Your task to perform on an android device: open wifi settings Image 0: 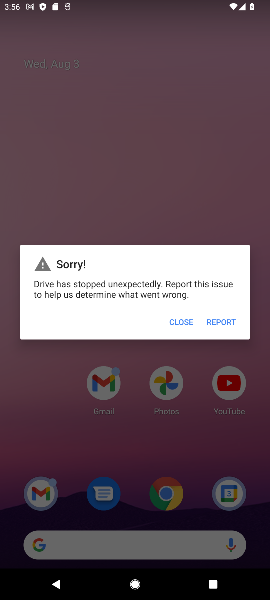
Step 0: press home button
Your task to perform on an android device: open wifi settings Image 1: 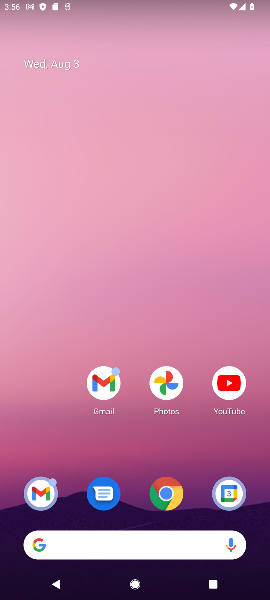
Step 1: drag from (49, 444) to (75, 144)
Your task to perform on an android device: open wifi settings Image 2: 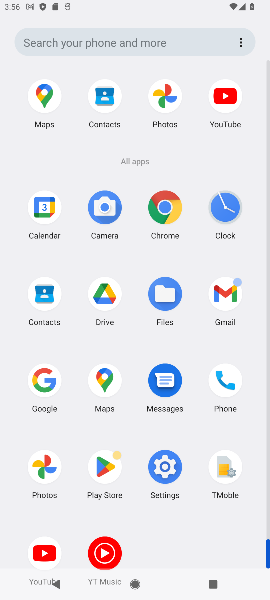
Step 2: click (176, 467)
Your task to perform on an android device: open wifi settings Image 3: 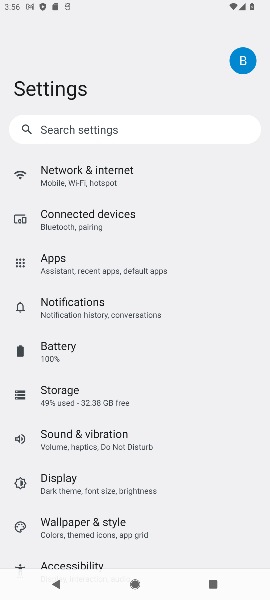
Step 3: drag from (238, 468) to (242, 408)
Your task to perform on an android device: open wifi settings Image 4: 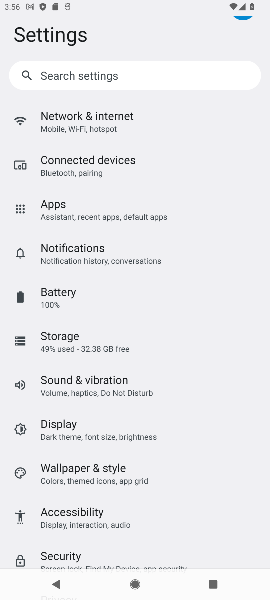
Step 4: drag from (217, 485) to (229, 394)
Your task to perform on an android device: open wifi settings Image 5: 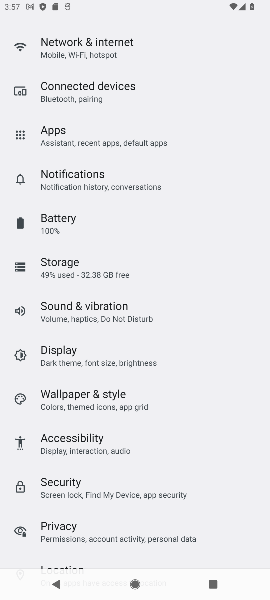
Step 5: drag from (230, 455) to (231, 401)
Your task to perform on an android device: open wifi settings Image 6: 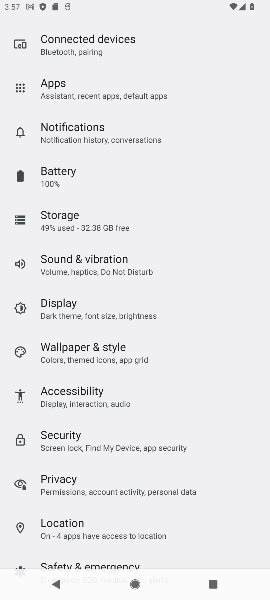
Step 6: drag from (226, 532) to (233, 466)
Your task to perform on an android device: open wifi settings Image 7: 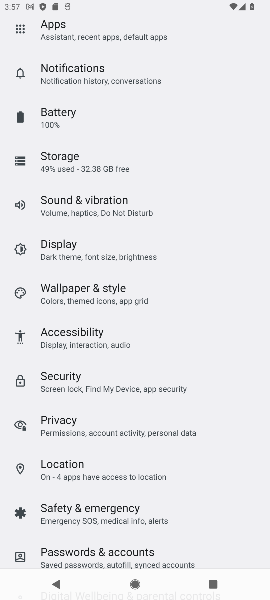
Step 7: drag from (220, 529) to (228, 451)
Your task to perform on an android device: open wifi settings Image 8: 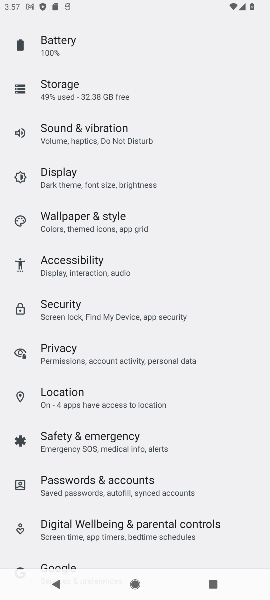
Step 8: drag from (228, 547) to (242, 464)
Your task to perform on an android device: open wifi settings Image 9: 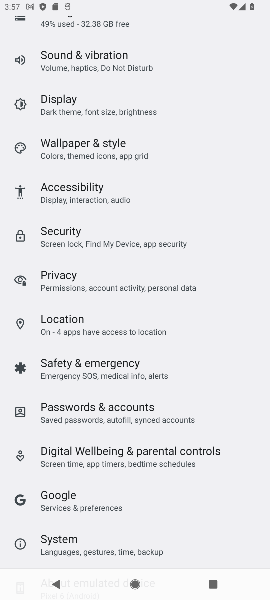
Step 9: drag from (233, 542) to (239, 462)
Your task to perform on an android device: open wifi settings Image 10: 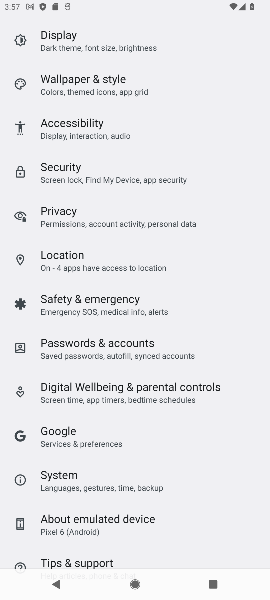
Step 10: drag from (212, 507) to (218, 416)
Your task to perform on an android device: open wifi settings Image 11: 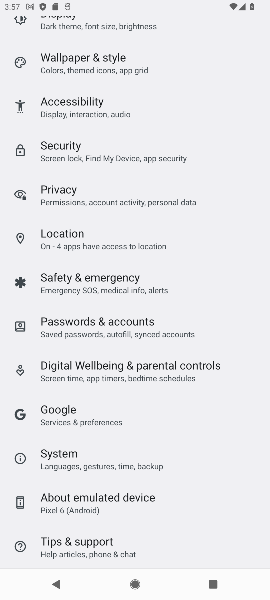
Step 11: drag from (223, 288) to (229, 363)
Your task to perform on an android device: open wifi settings Image 12: 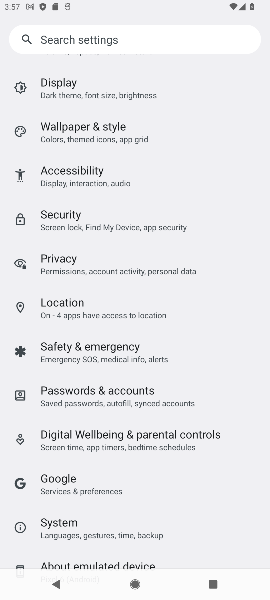
Step 12: drag from (226, 278) to (229, 352)
Your task to perform on an android device: open wifi settings Image 13: 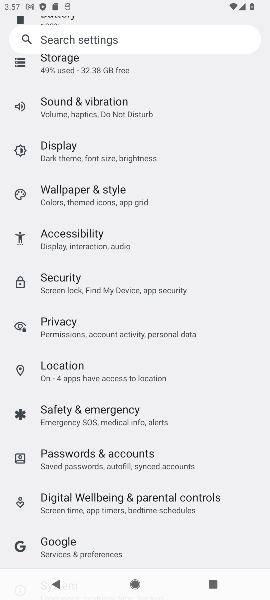
Step 13: drag from (224, 237) to (225, 313)
Your task to perform on an android device: open wifi settings Image 14: 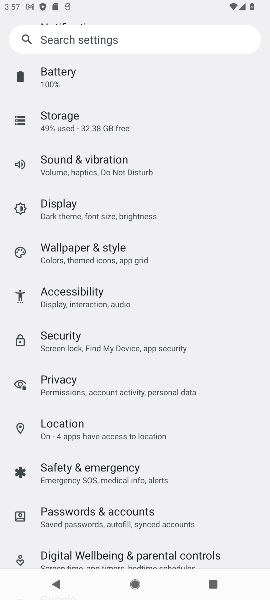
Step 14: drag from (210, 205) to (214, 291)
Your task to perform on an android device: open wifi settings Image 15: 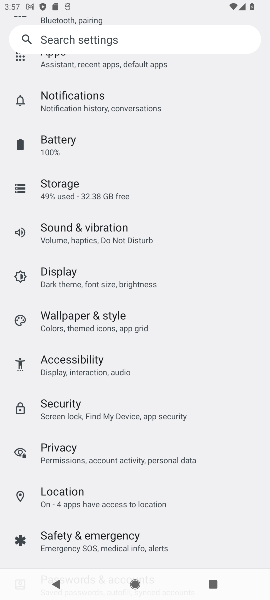
Step 15: drag from (208, 184) to (208, 274)
Your task to perform on an android device: open wifi settings Image 16: 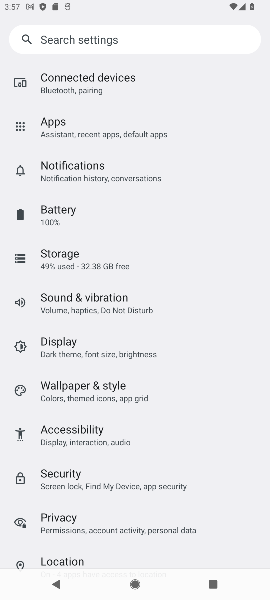
Step 16: drag from (207, 158) to (213, 312)
Your task to perform on an android device: open wifi settings Image 17: 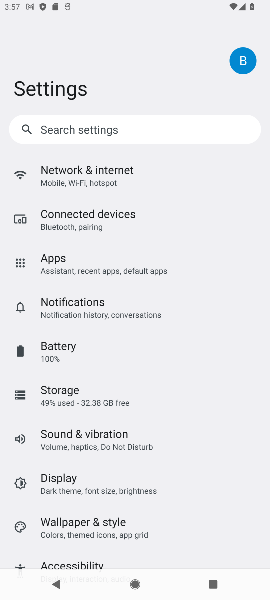
Step 17: drag from (212, 186) to (211, 313)
Your task to perform on an android device: open wifi settings Image 18: 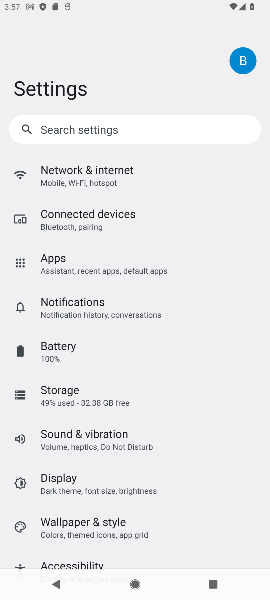
Step 18: click (155, 174)
Your task to perform on an android device: open wifi settings Image 19: 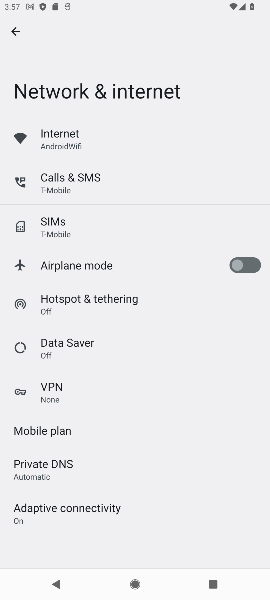
Step 19: click (66, 136)
Your task to perform on an android device: open wifi settings Image 20: 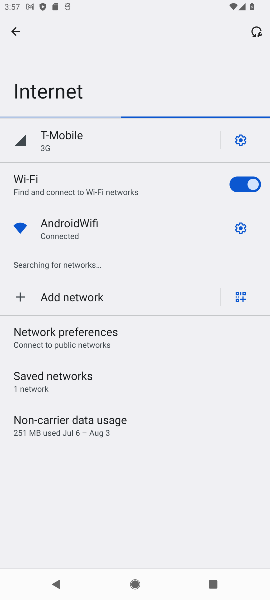
Step 20: task complete